Your task to perform on an android device: uninstall "Adobe Express: Graphic Design" Image 0: 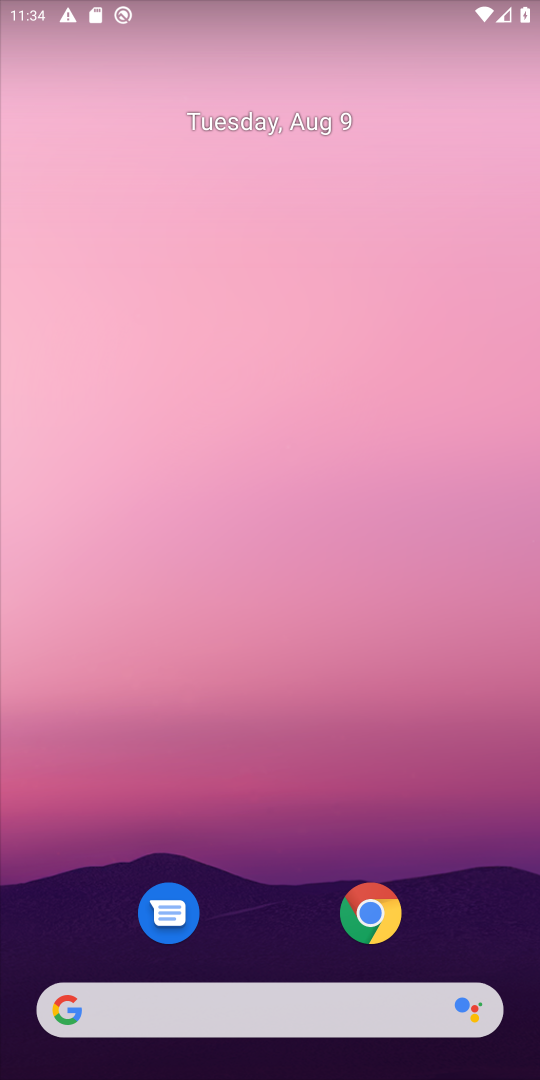
Step 0: drag from (288, 946) to (422, 52)
Your task to perform on an android device: uninstall "Adobe Express: Graphic Design" Image 1: 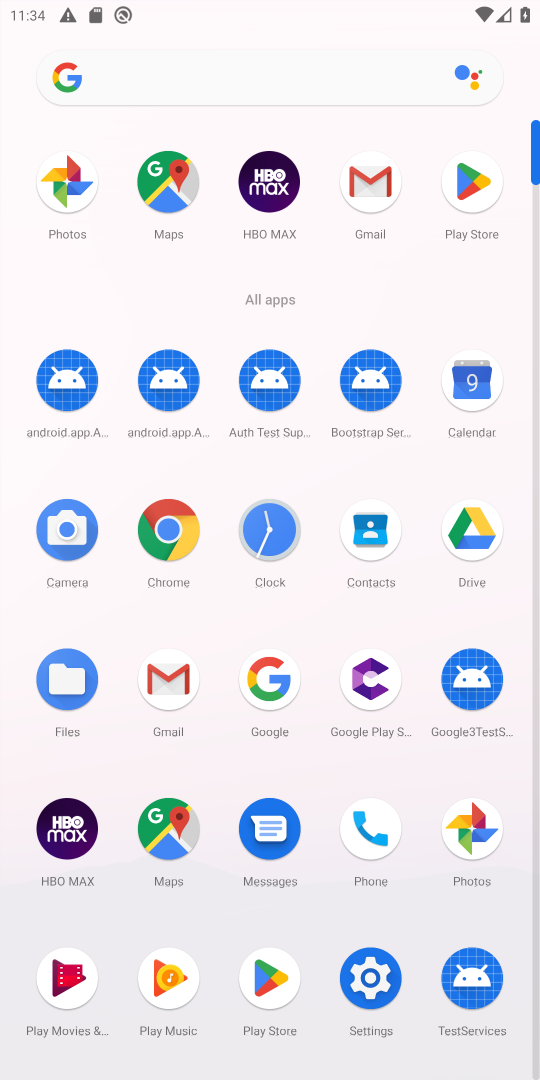
Step 1: click (253, 991)
Your task to perform on an android device: uninstall "Adobe Express: Graphic Design" Image 2: 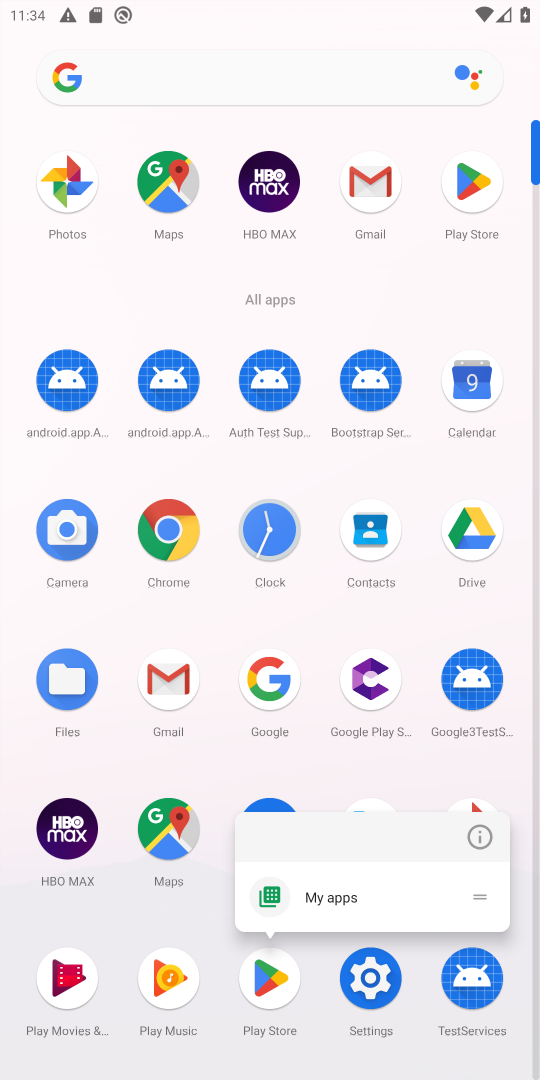
Step 2: click (253, 991)
Your task to perform on an android device: uninstall "Adobe Express: Graphic Design" Image 3: 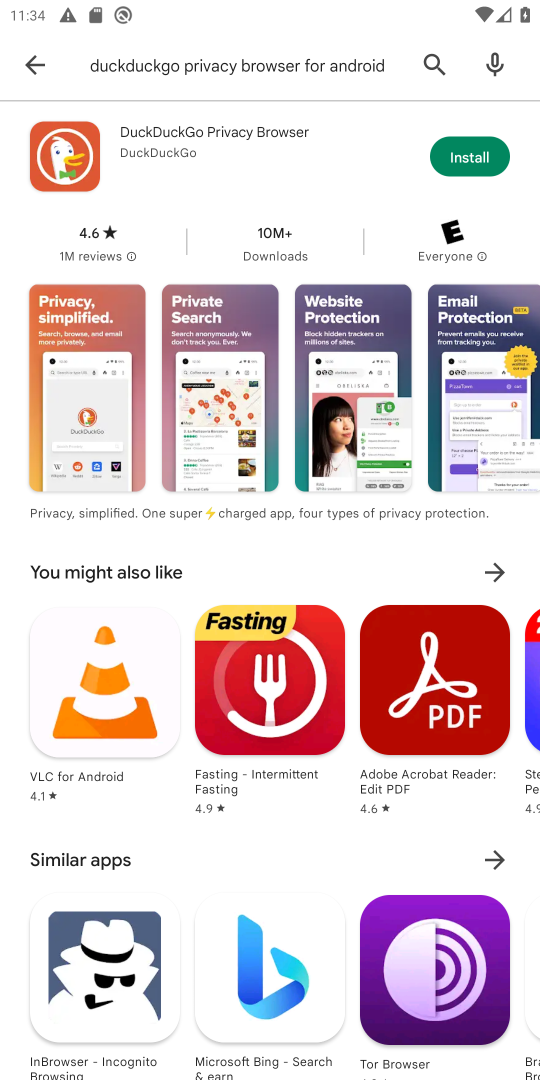
Step 3: click (22, 57)
Your task to perform on an android device: uninstall "Adobe Express: Graphic Design" Image 4: 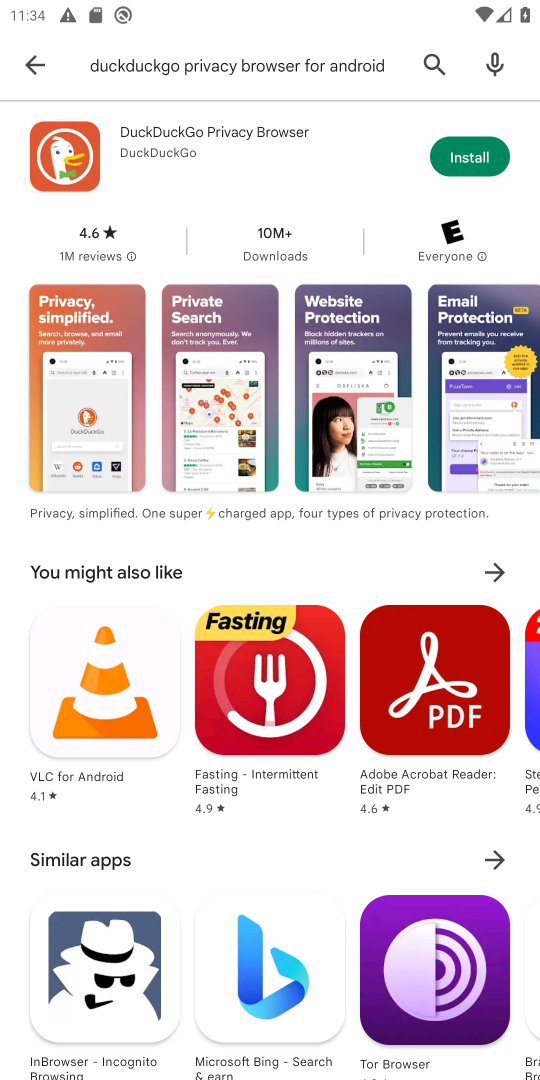
Step 4: click (24, 64)
Your task to perform on an android device: uninstall "Adobe Express: Graphic Design" Image 5: 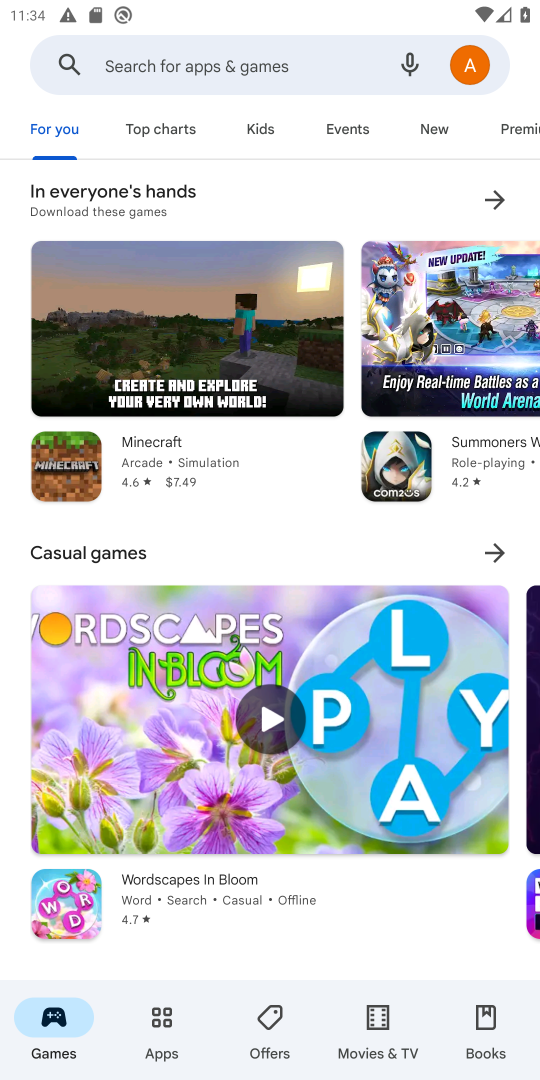
Step 5: click (224, 44)
Your task to perform on an android device: uninstall "Adobe Express: Graphic Design" Image 6: 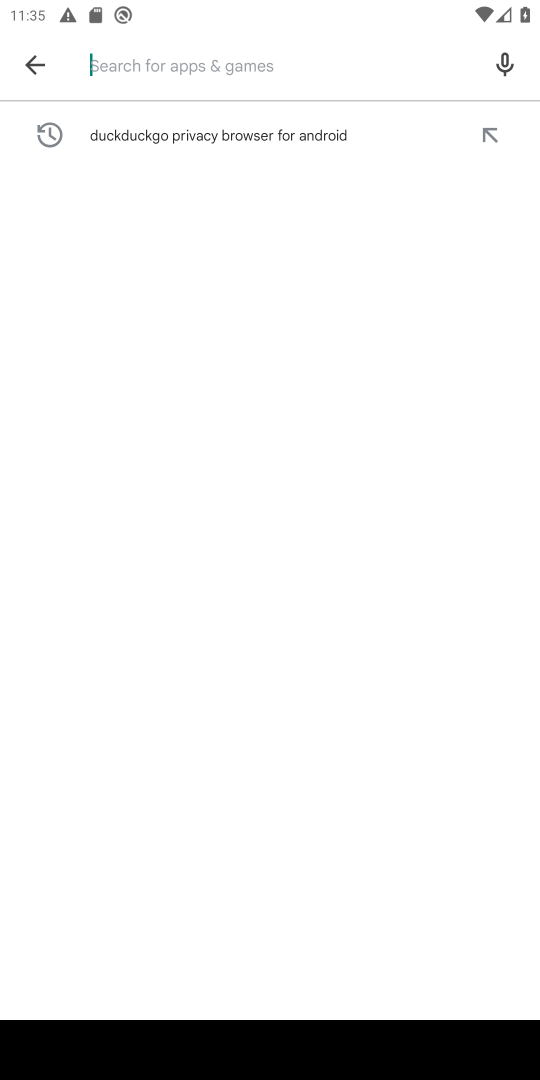
Step 6: type "Adobe Express: Graphic Design" "
Your task to perform on an android device: uninstall "Adobe Express: Graphic Design" Image 7: 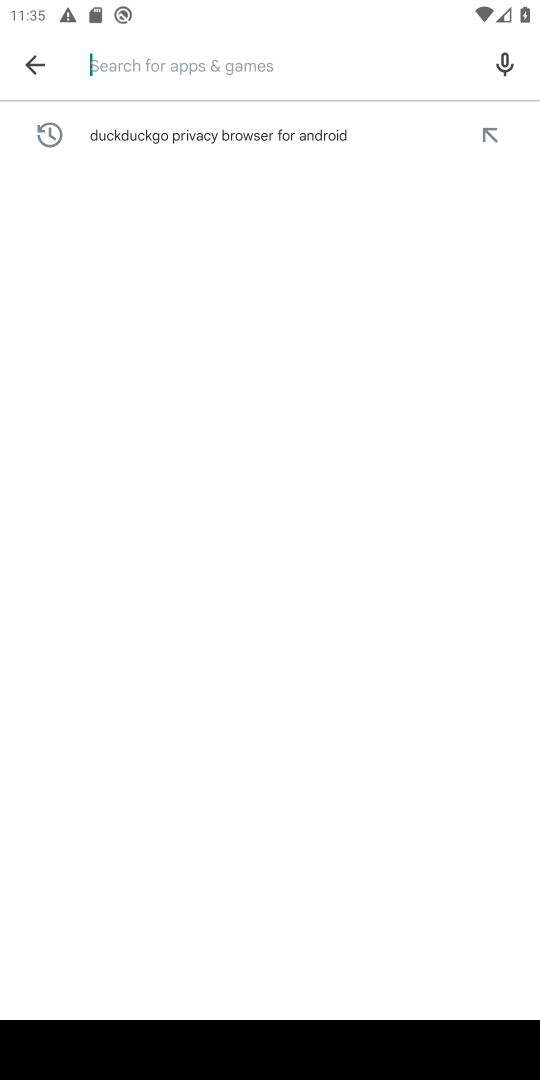
Step 7: click (213, 41)
Your task to perform on an android device: uninstall "Adobe Express: Graphic Design" Image 8: 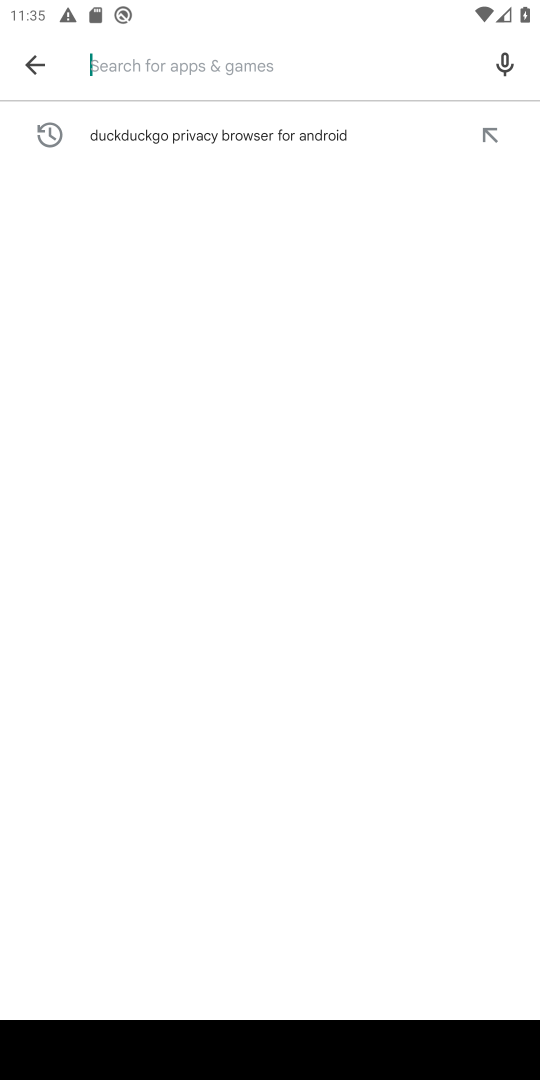
Step 8: type "Adobe Express: Graphic Design "
Your task to perform on an android device: uninstall "Adobe Express: Graphic Design" Image 9: 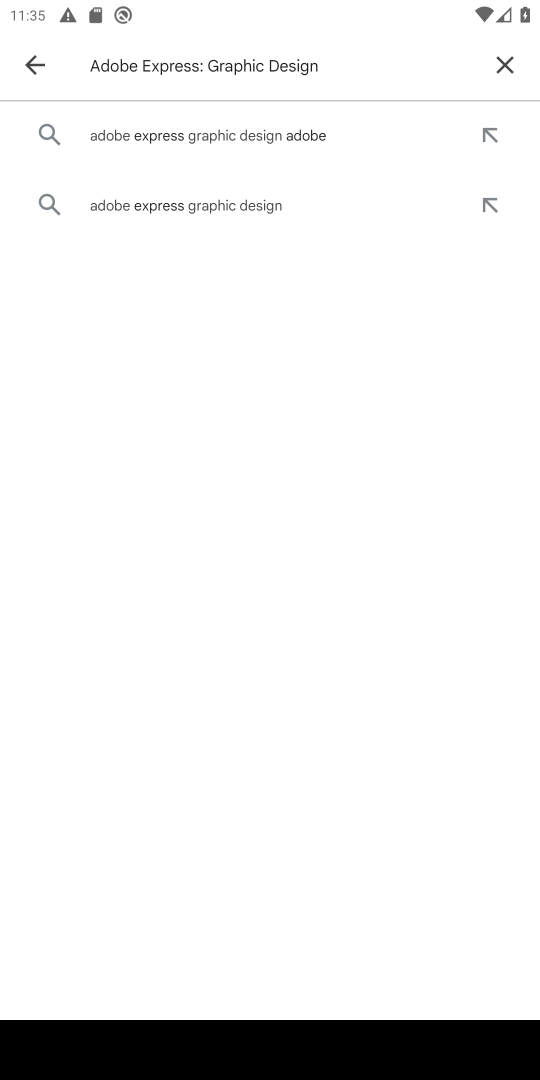
Step 9: click (269, 126)
Your task to perform on an android device: uninstall "Adobe Express: Graphic Design" Image 10: 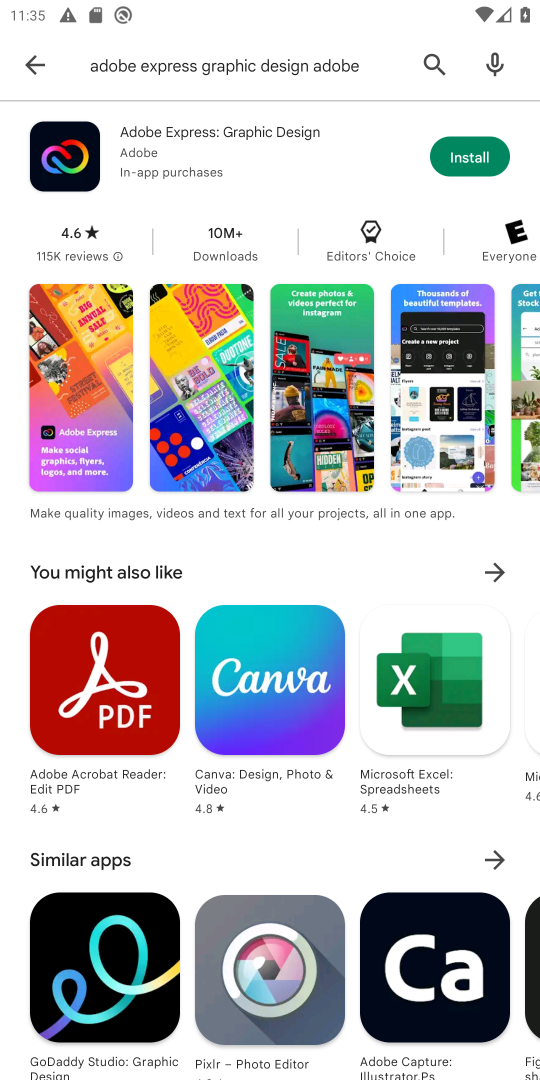
Step 10: task complete